Your task to perform on an android device: set the timer Image 0: 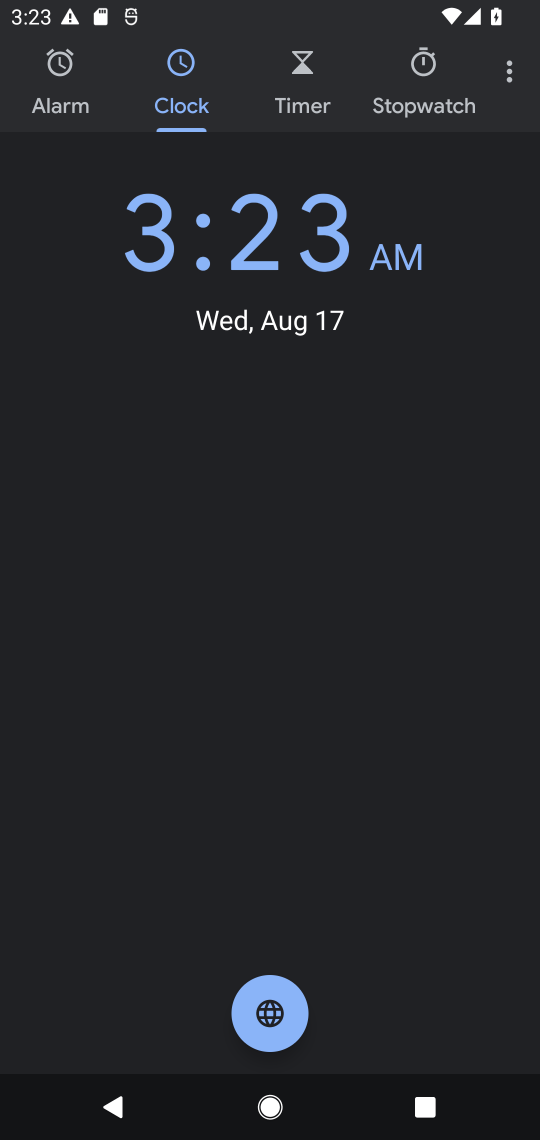
Step 0: click (314, 105)
Your task to perform on an android device: set the timer Image 1: 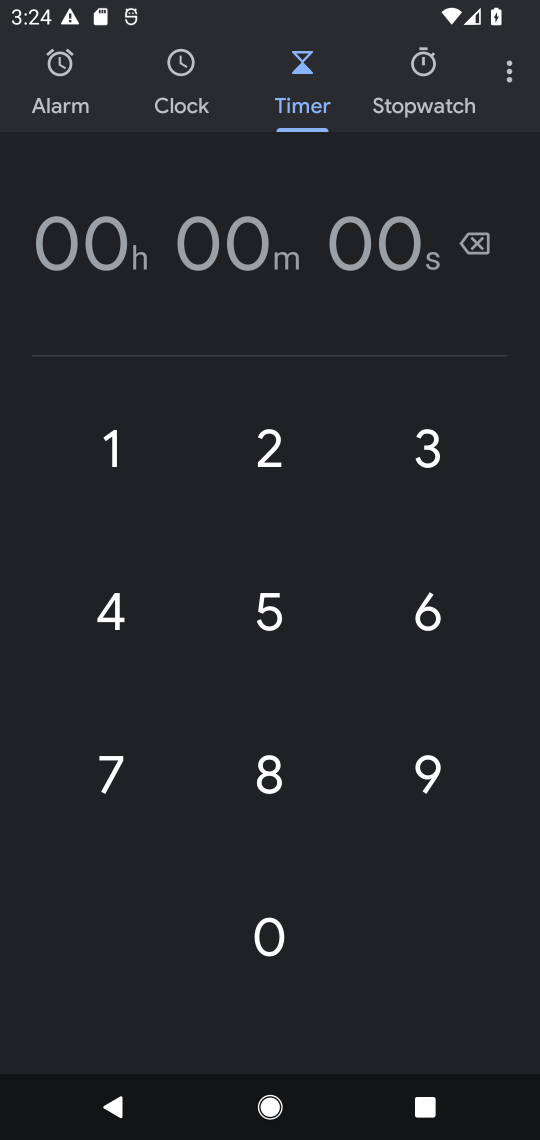
Step 1: click (271, 451)
Your task to perform on an android device: set the timer Image 2: 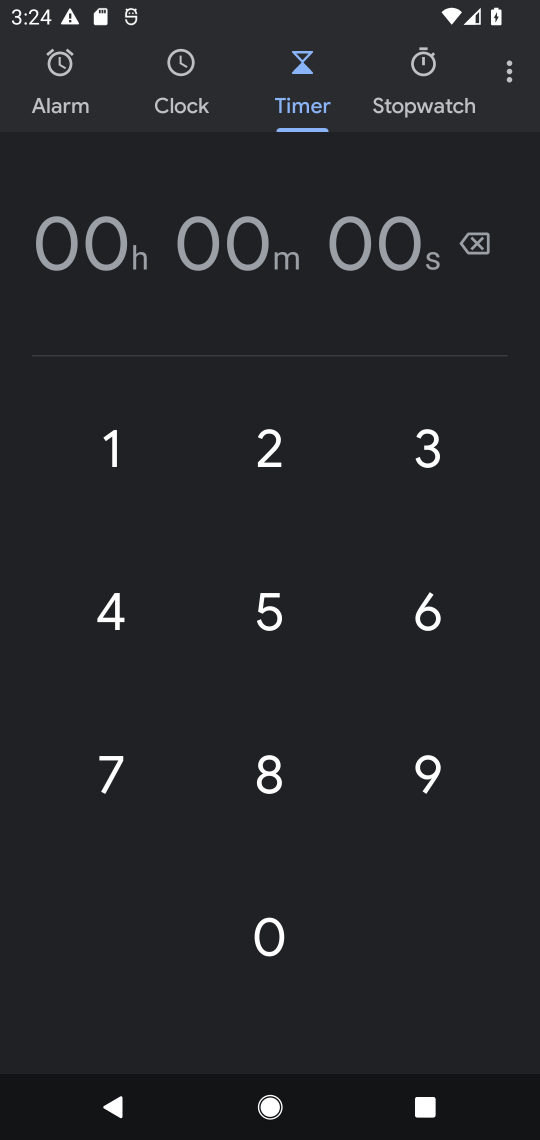
Step 2: click (247, 543)
Your task to perform on an android device: set the timer Image 3: 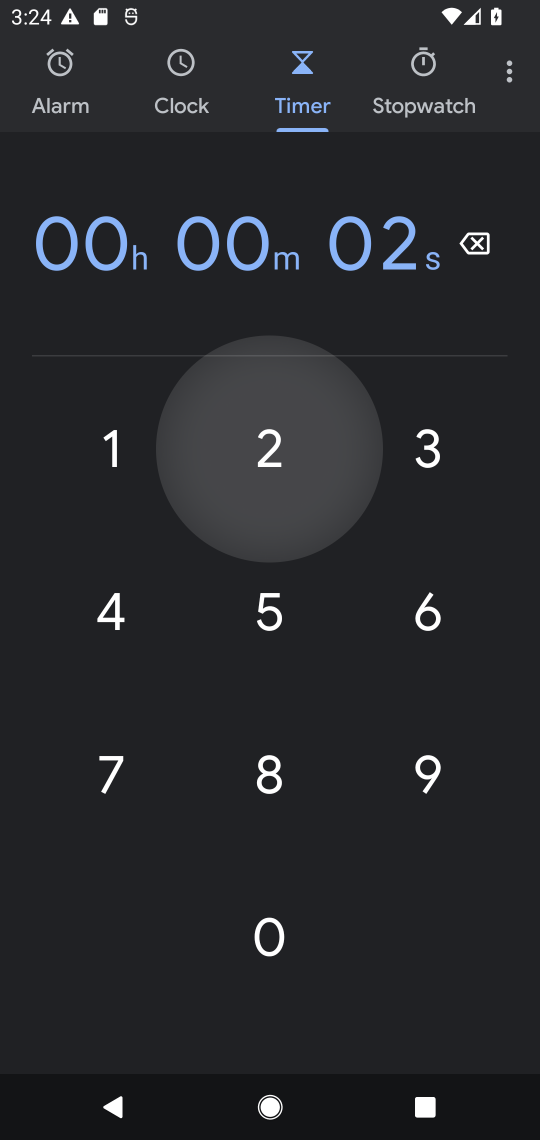
Step 3: click (269, 424)
Your task to perform on an android device: set the timer Image 4: 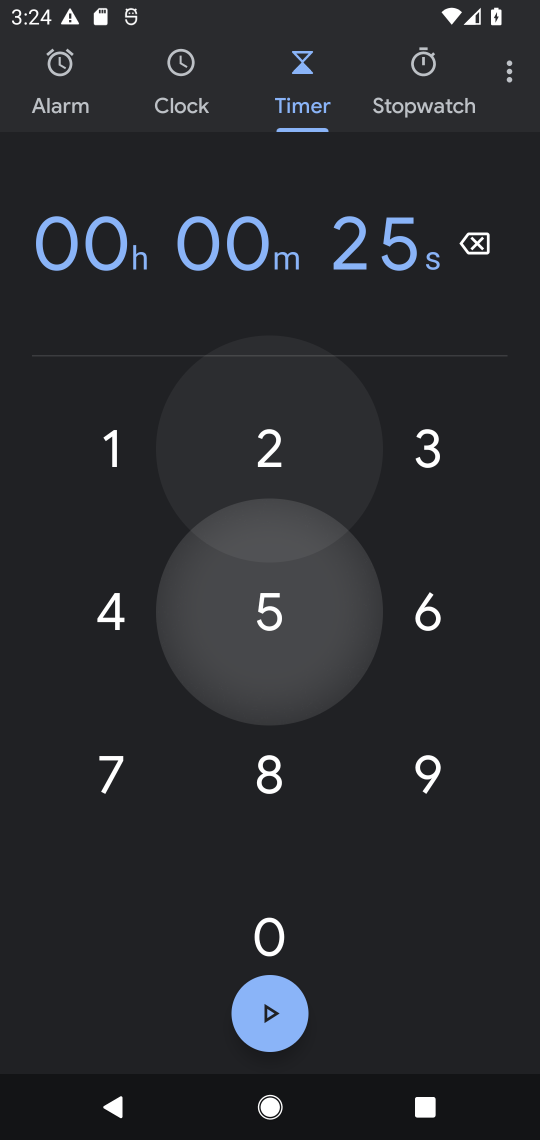
Step 4: click (236, 525)
Your task to perform on an android device: set the timer Image 5: 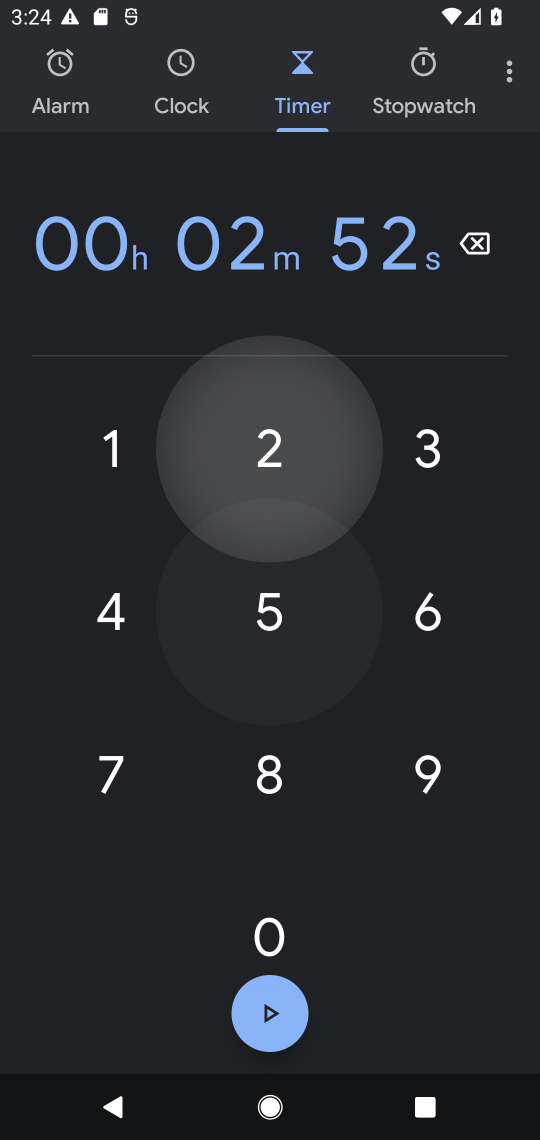
Step 5: drag from (251, 484) to (249, 557)
Your task to perform on an android device: set the timer Image 6: 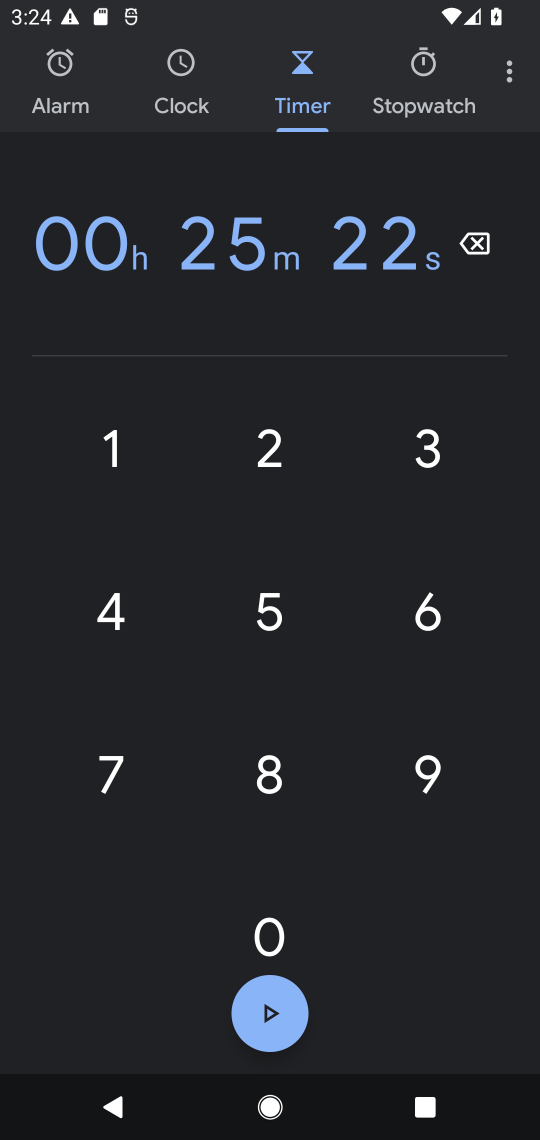
Step 6: click (249, 505)
Your task to perform on an android device: set the timer Image 7: 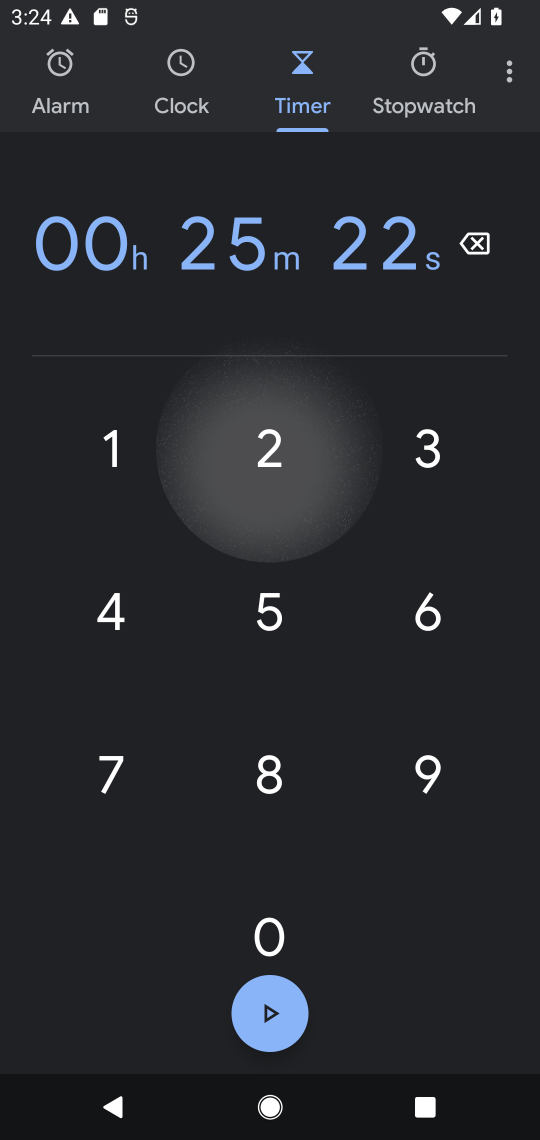
Step 7: click (249, 579)
Your task to perform on an android device: set the timer Image 8: 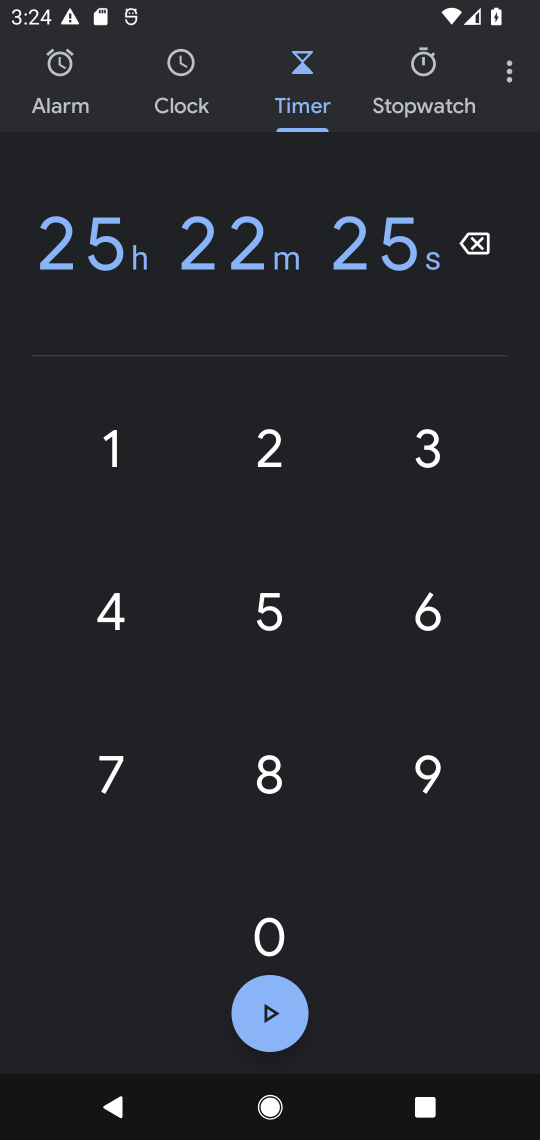
Step 8: click (261, 1016)
Your task to perform on an android device: set the timer Image 9: 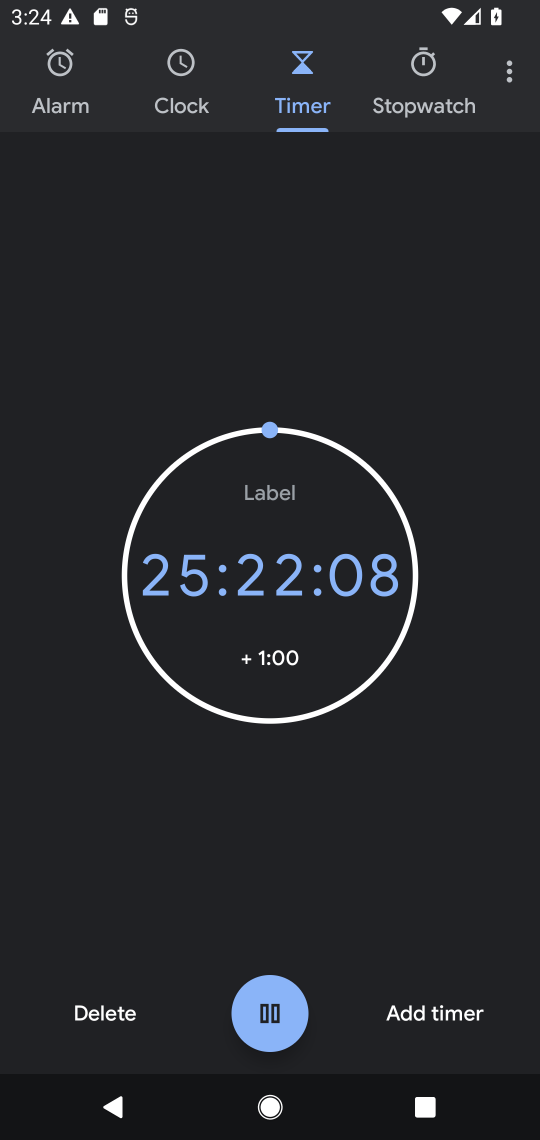
Step 9: task complete